Your task to perform on an android device: turn on the 24-hour format for clock Image 0: 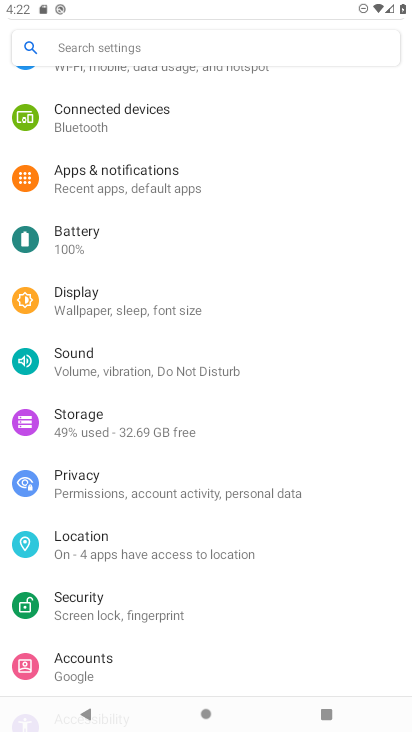
Step 0: press home button
Your task to perform on an android device: turn on the 24-hour format for clock Image 1: 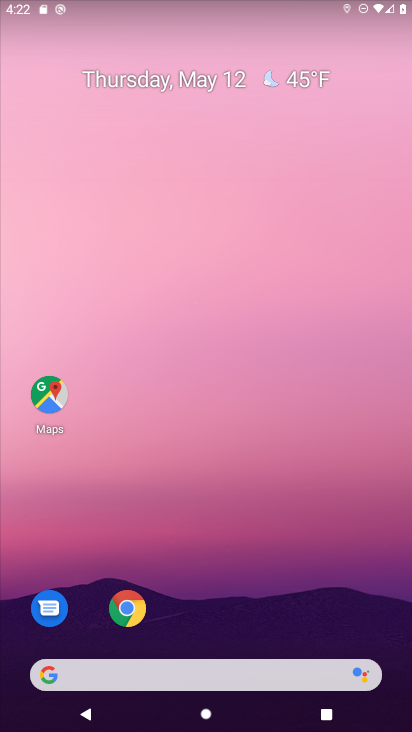
Step 1: drag from (276, 552) to (385, 192)
Your task to perform on an android device: turn on the 24-hour format for clock Image 2: 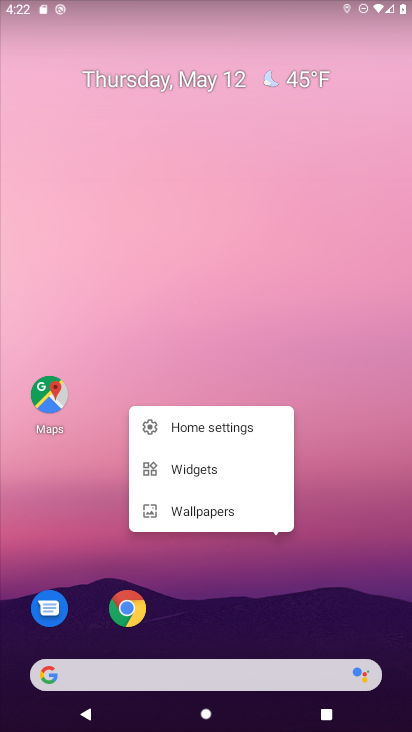
Step 2: click (242, 306)
Your task to perform on an android device: turn on the 24-hour format for clock Image 3: 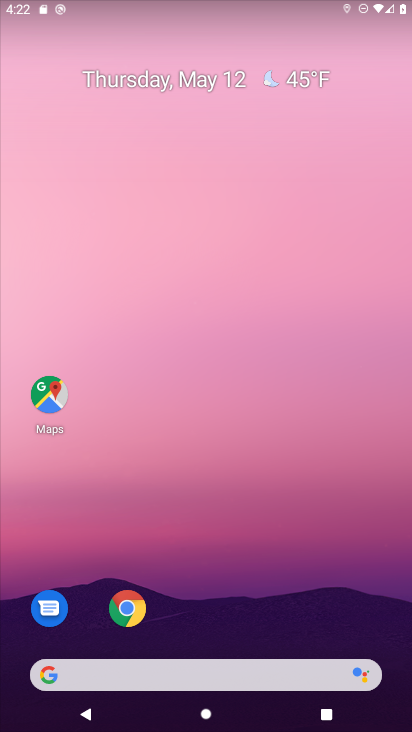
Step 3: drag from (267, 541) to (264, 393)
Your task to perform on an android device: turn on the 24-hour format for clock Image 4: 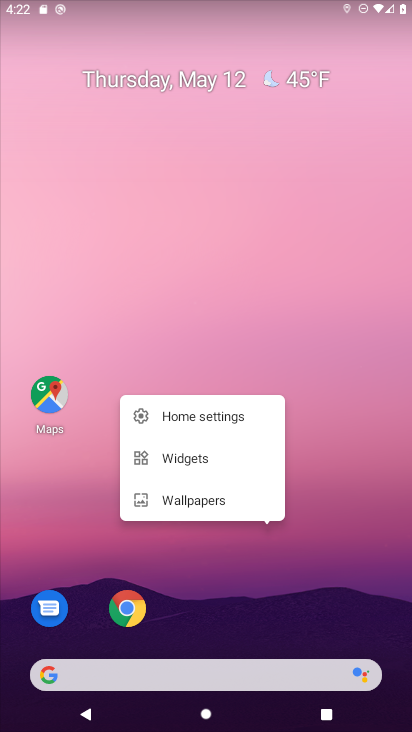
Step 4: click (282, 587)
Your task to perform on an android device: turn on the 24-hour format for clock Image 5: 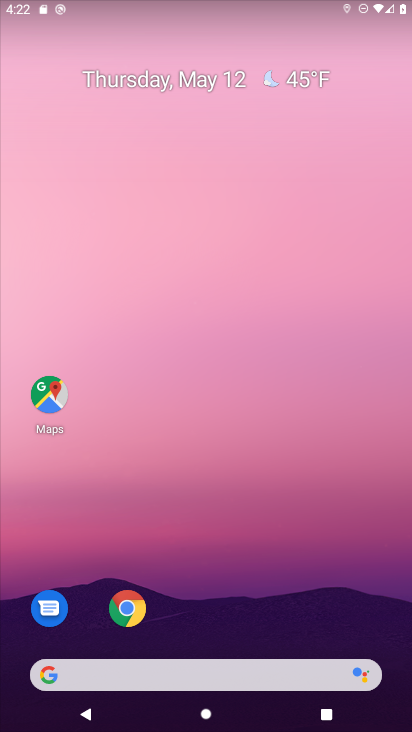
Step 5: drag from (282, 587) to (234, 71)
Your task to perform on an android device: turn on the 24-hour format for clock Image 6: 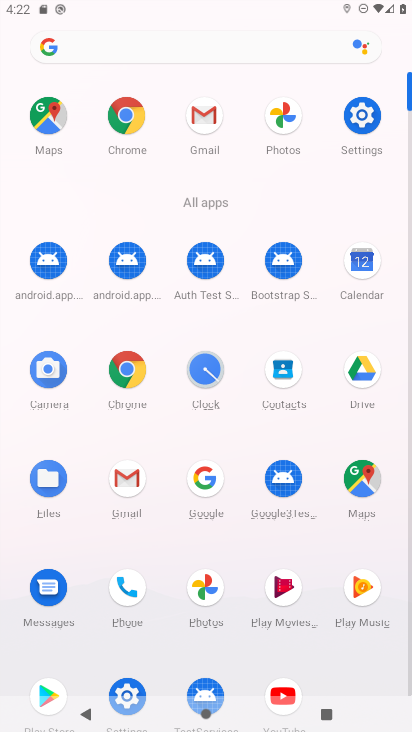
Step 6: click (210, 381)
Your task to perform on an android device: turn on the 24-hour format for clock Image 7: 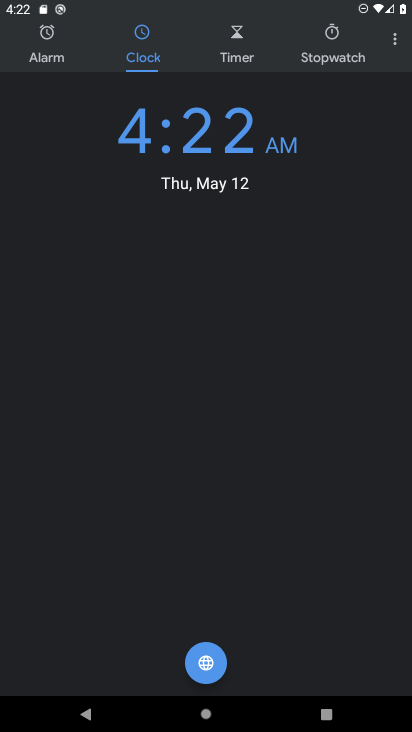
Step 7: click (384, 47)
Your task to perform on an android device: turn on the 24-hour format for clock Image 8: 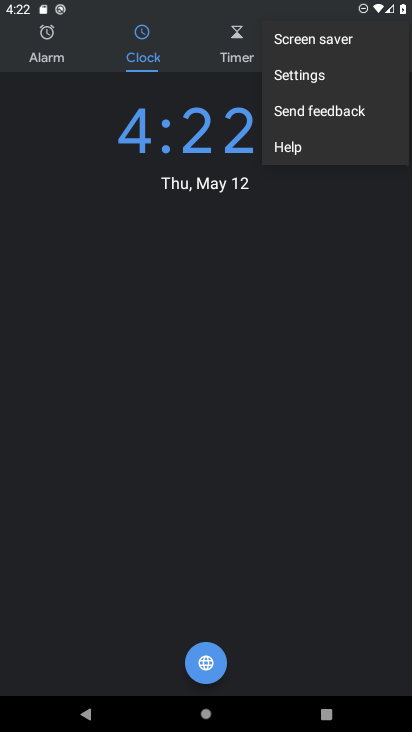
Step 8: click (320, 83)
Your task to perform on an android device: turn on the 24-hour format for clock Image 9: 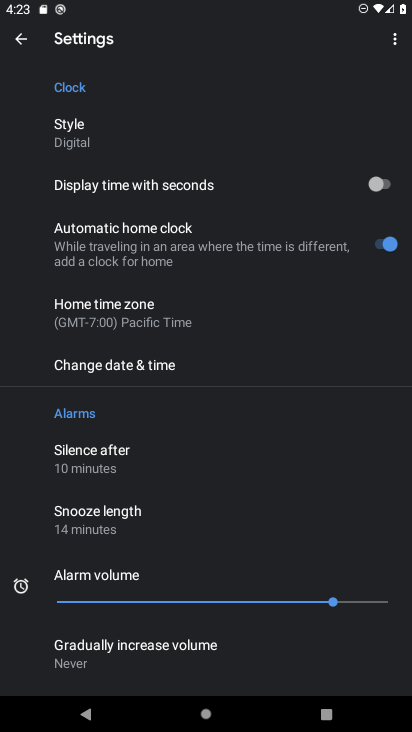
Step 9: click (155, 358)
Your task to perform on an android device: turn on the 24-hour format for clock Image 10: 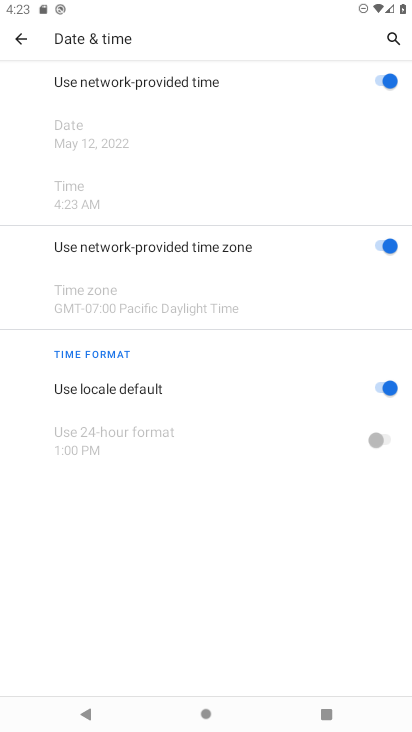
Step 10: click (375, 393)
Your task to perform on an android device: turn on the 24-hour format for clock Image 11: 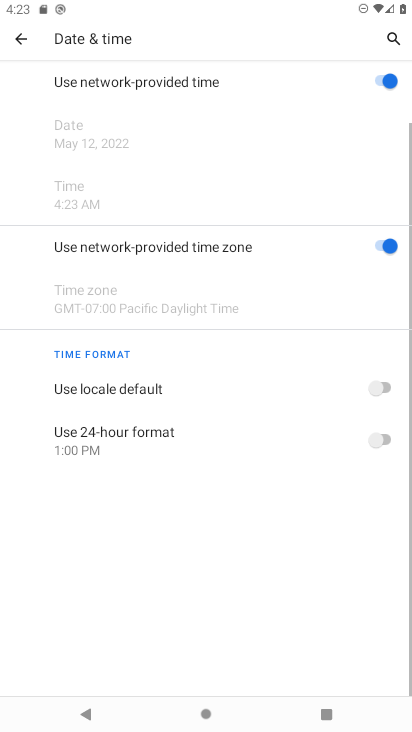
Step 11: click (374, 431)
Your task to perform on an android device: turn on the 24-hour format for clock Image 12: 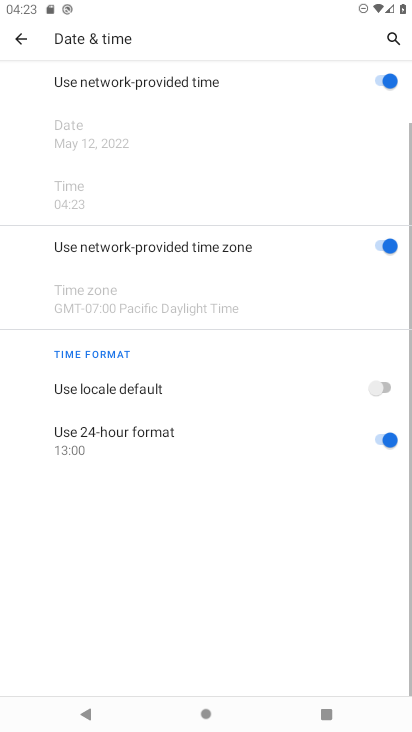
Step 12: task complete